Your task to perform on an android device: What's the weather like in Hong Kong? Image 0: 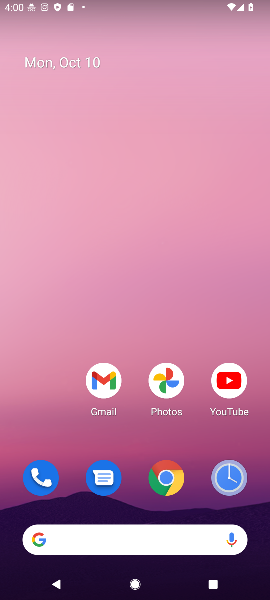
Step 0: click (161, 478)
Your task to perform on an android device: What's the weather like in Hong Kong? Image 1: 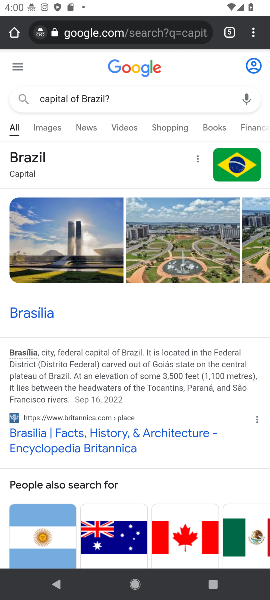
Step 1: click (165, 37)
Your task to perform on an android device: What's the weather like in Hong Kong? Image 2: 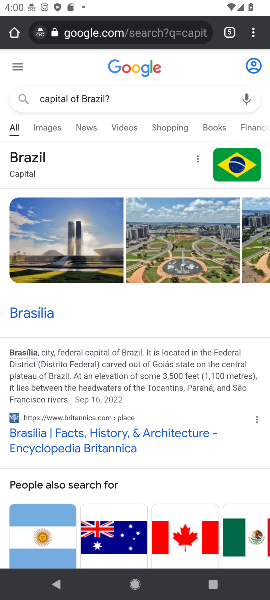
Step 2: click (165, 37)
Your task to perform on an android device: What's the weather like in Hong Kong? Image 3: 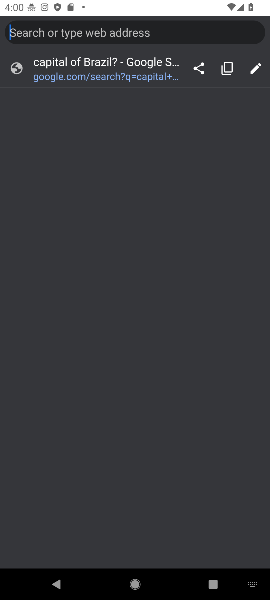
Step 3: type "What's the weather like in Hong Kong?"
Your task to perform on an android device: What's the weather like in Hong Kong? Image 4: 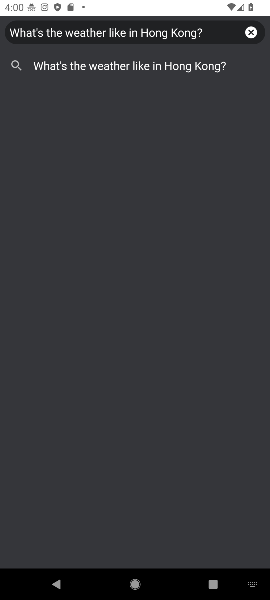
Step 4: click (181, 61)
Your task to perform on an android device: What's the weather like in Hong Kong? Image 5: 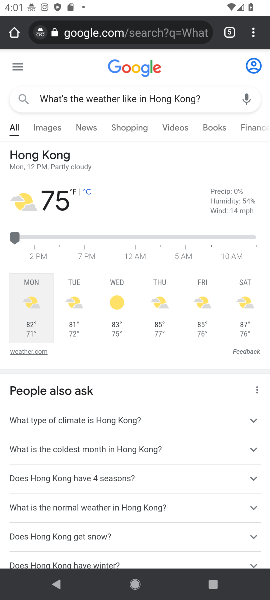
Step 5: task complete